Your task to perform on an android device: turn on priority inbox in the gmail app Image 0: 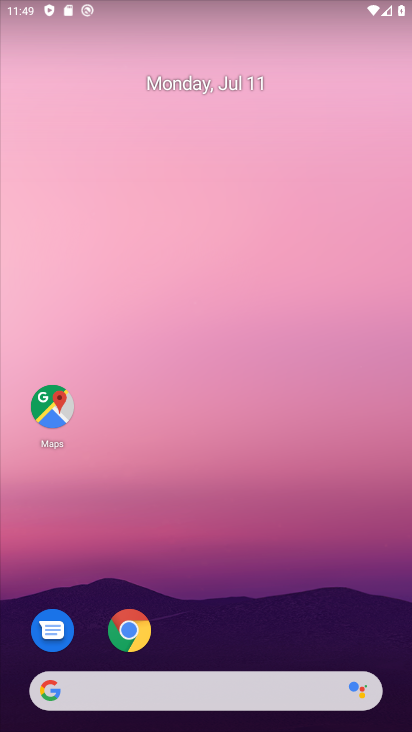
Step 0: drag from (210, 689) to (182, 101)
Your task to perform on an android device: turn on priority inbox in the gmail app Image 1: 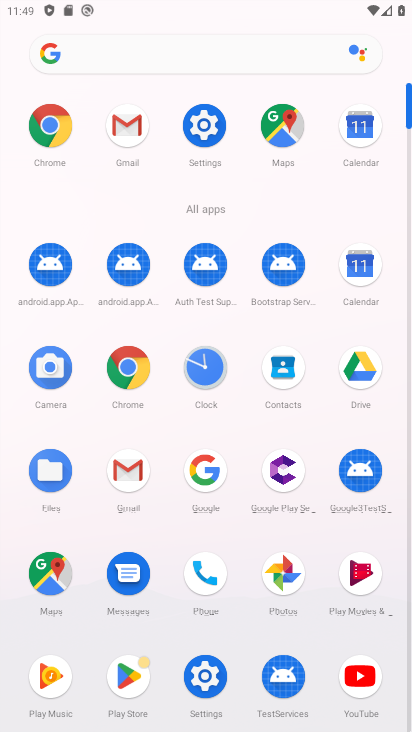
Step 1: click (127, 125)
Your task to perform on an android device: turn on priority inbox in the gmail app Image 2: 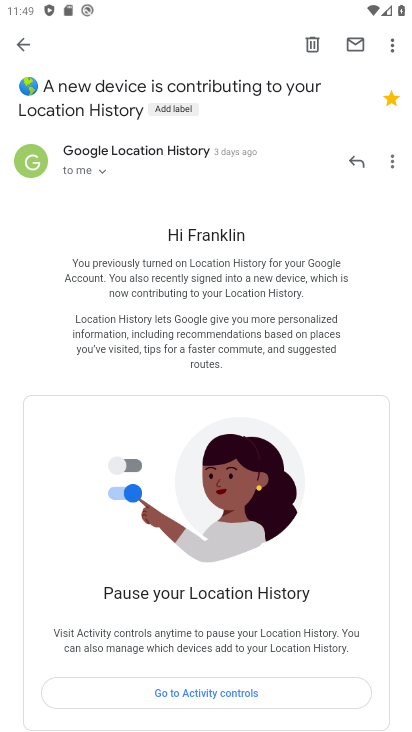
Step 2: press back button
Your task to perform on an android device: turn on priority inbox in the gmail app Image 3: 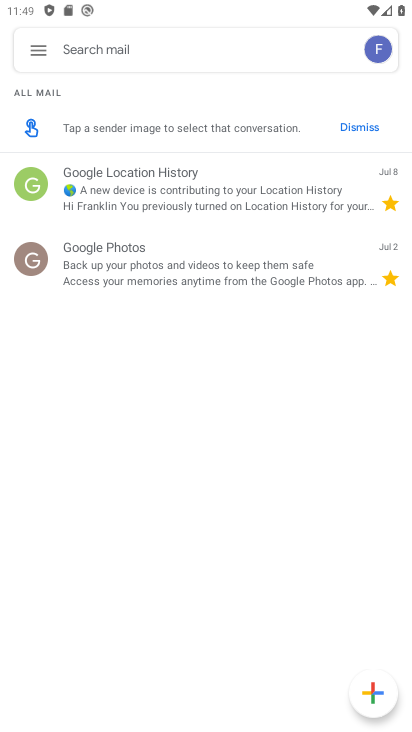
Step 3: click (36, 49)
Your task to perform on an android device: turn on priority inbox in the gmail app Image 4: 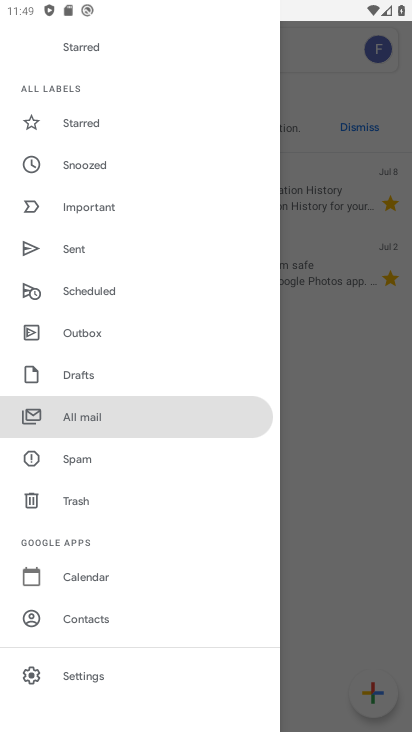
Step 4: click (86, 675)
Your task to perform on an android device: turn on priority inbox in the gmail app Image 5: 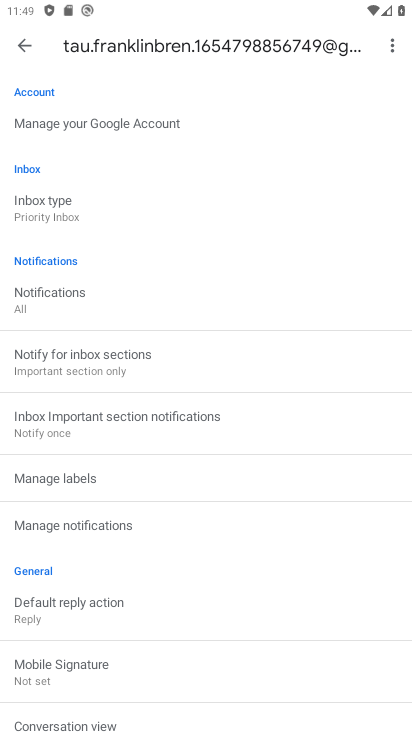
Step 5: click (68, 221)
Your task to perform on an android device: turn on priority inbox in the gmail app Image 6: 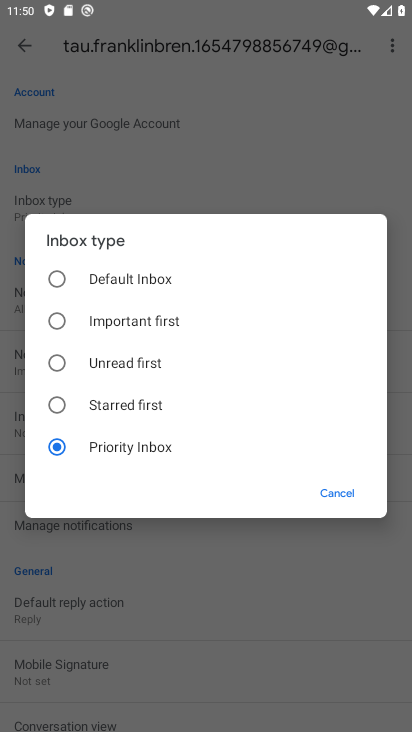
Step 6: click (58, 444)
Your task to perform on an android device: turn on priority inbox in the gmail app Image 7: 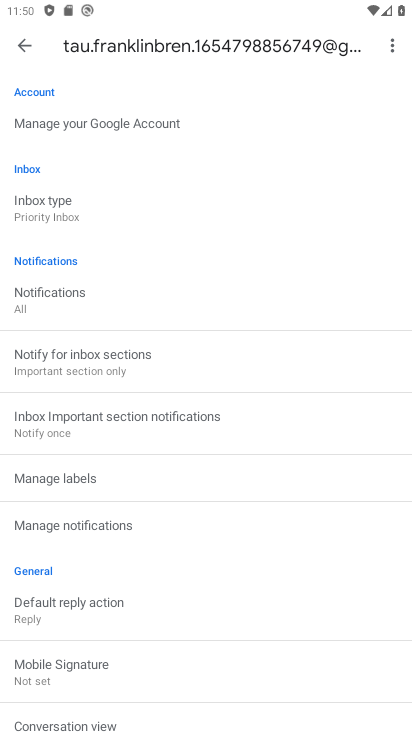
Step 7: task complete